Your task to perform on an android device: turn off smart reply in the gmail app Image 0: 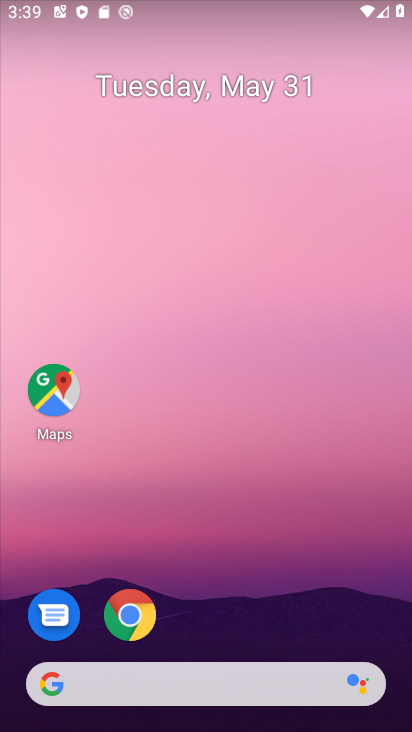
Step 0: click (102, 97)
Your task to perform on an android device: turn off smart reply in the gmail app Image 1: 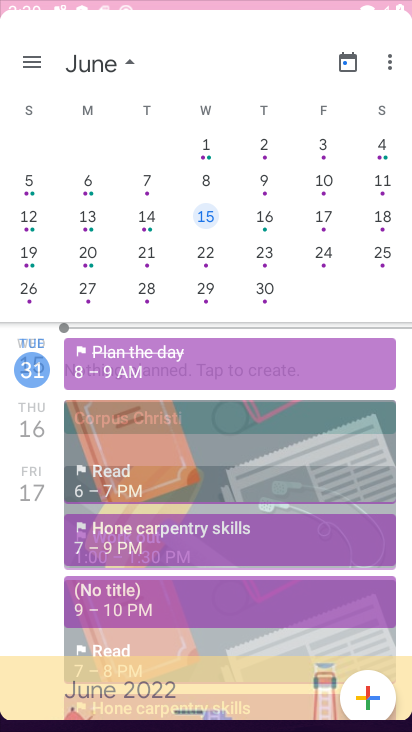
Step 1: click (222, 44)
Your task to perform on an android device: turn off smart reply in the gmail app Image 2: 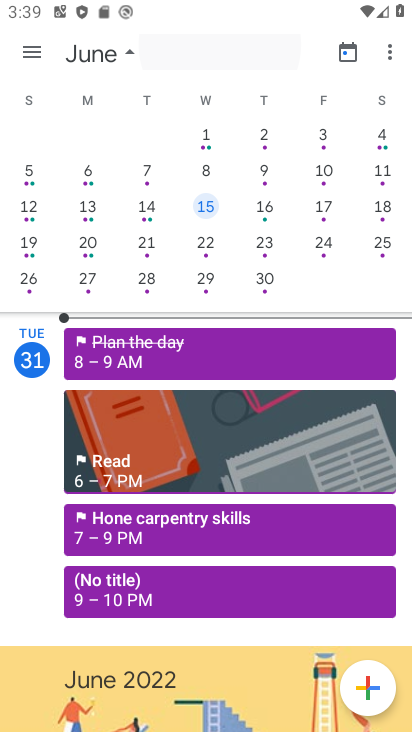
Step 2: drag from (220, 254) to (196, 93)
Your task to perform on an android device: turn off smart reply in the gmail app Image 3: 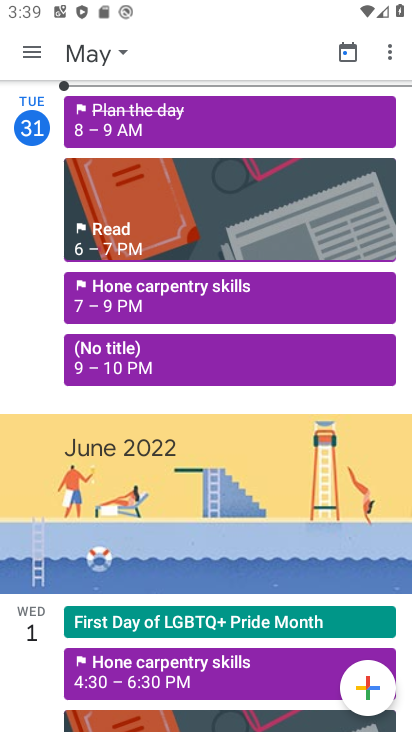
Step 3: press back button
Your task to perform on an android device: turn off smart reply in the gmail app Image 4: 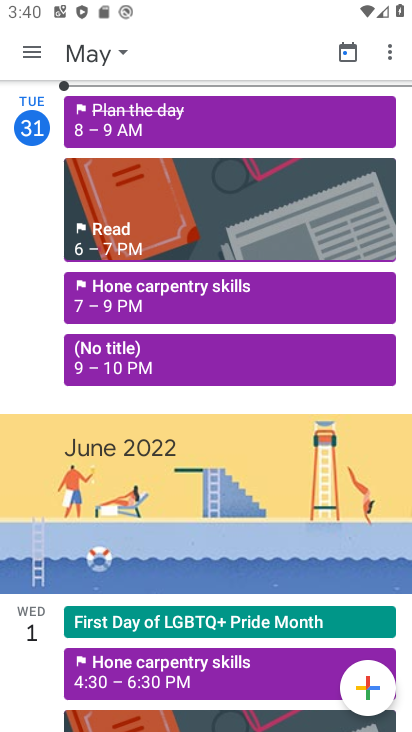
Step 4: press back button
Your task to perform on an android device: turn off smart reply in the gmail app Image 5: 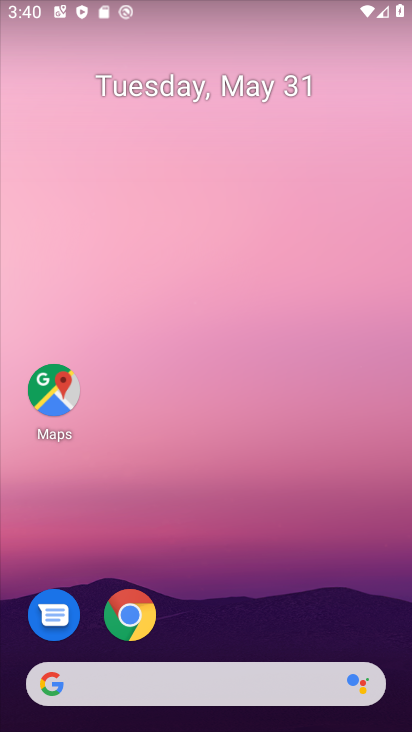
Step 5: drag from (242, 295) to (219, 75)
Your task to perform on an android device: turn off smart reply in the gmail app Image 6: 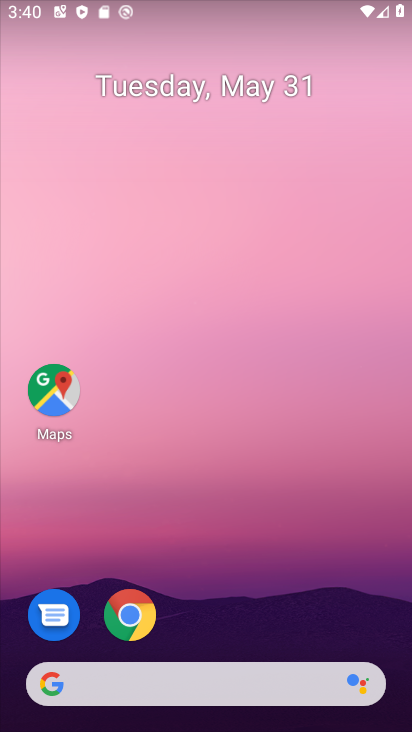
Step 6: drag from (259, 696) to (182, 54)
Your task to perform on an android device: turn off smart reply in the gmail app Image 7: 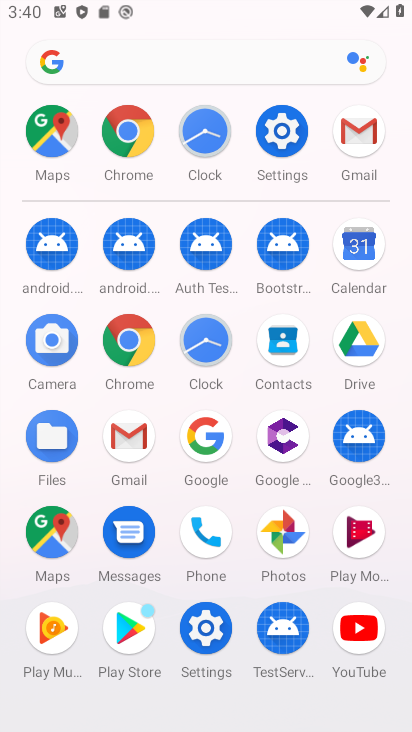
Step 7: drag from (182, 222) to (139, 34)
Your task to perform on an android device: turn off smart reply in the gmail app Image 8: 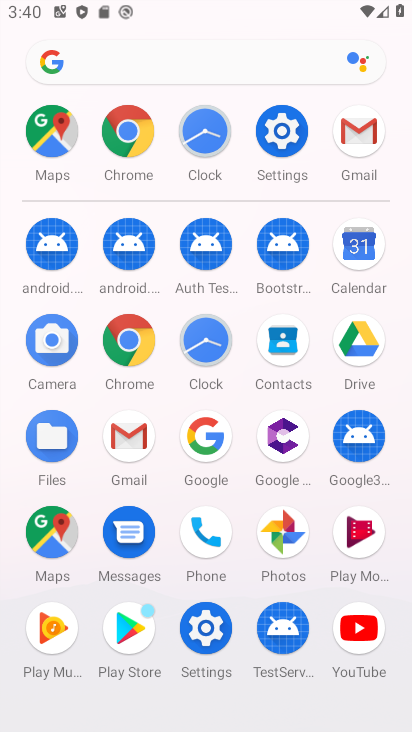
Step 8: click (130, 445)
Your task to perform on an android device: turn off smart reply in the gmail app Image 9: 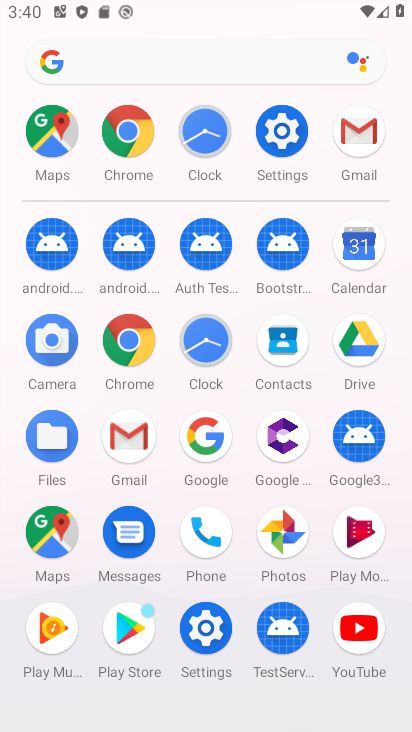
Step 9: click (132, 444)
Your task to perform on an android device: turn off smart reply in the gmail app Image 10: 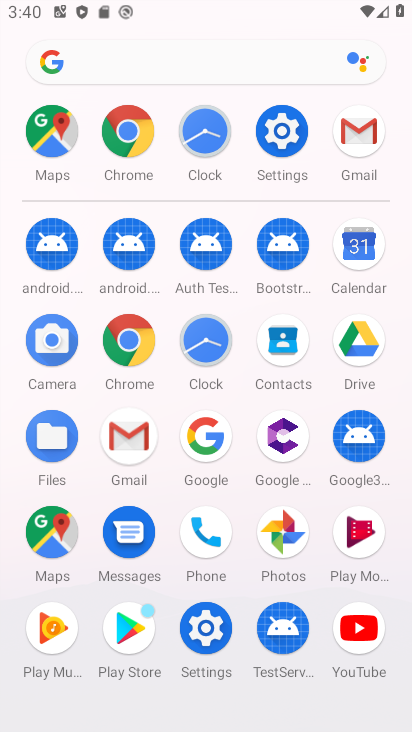
Step 10: click (135, 441)
Your task to perform on an android device: turn off smart reply in the gmail app Image 11: 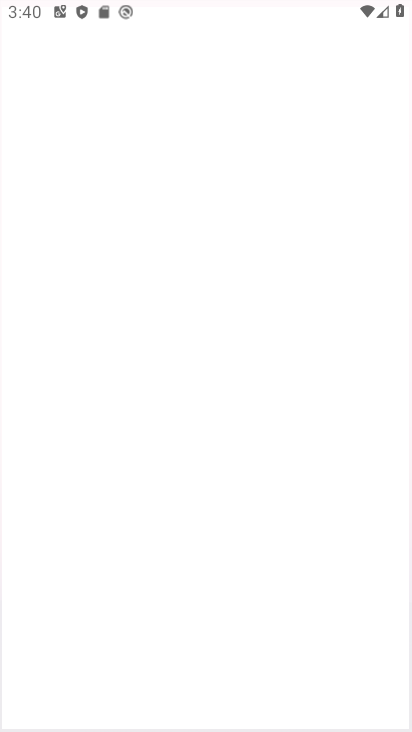
Step 11: click (135, 441)
Your task to perform on an android device: turn off smart reply in the gmail app Image 12: 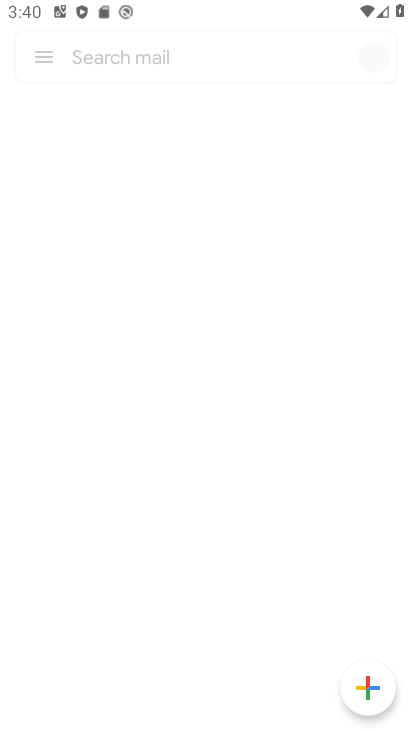
Step 12: click (138, 444)
Your task to perform on an android device: turn off smart reply in the gmail app Image 13: 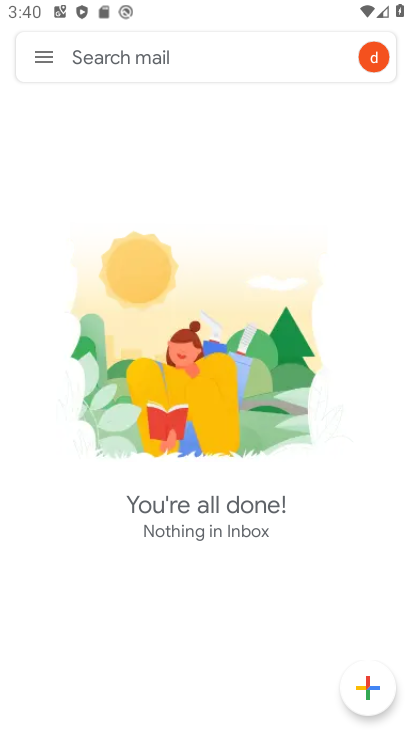
Step 13: click (47, 61)
Your task to perform on an android device: turn off smart reply in the gmail app Image 14: 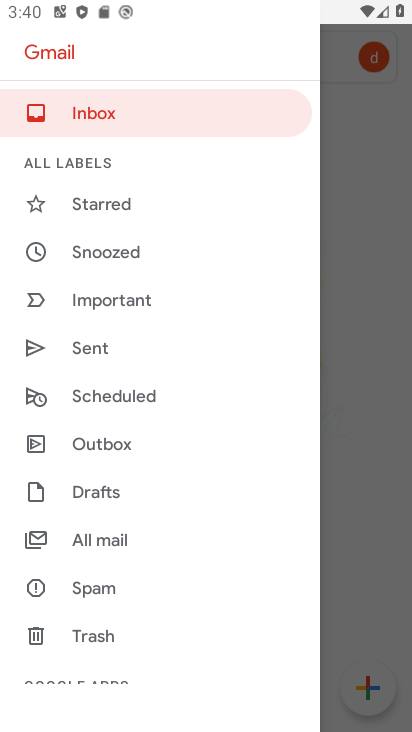
Step 14: drag from (105, 554) to (110, 185)
Your task to perform on an android device: turn off smart reply in the gmail app Image 15: 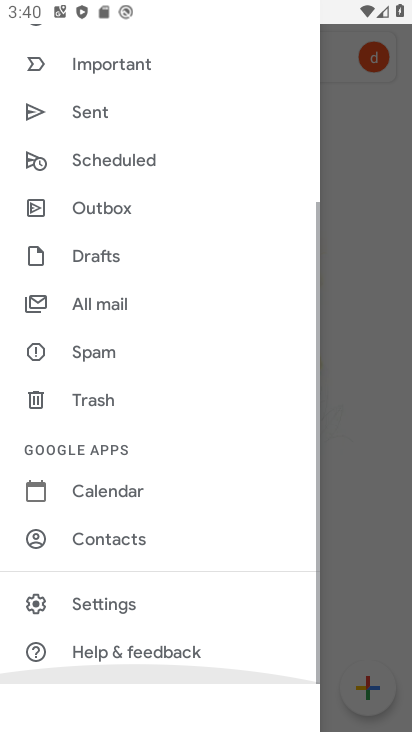
Step 15: drag from (92, 484) to (68, 245)
Your task to perform on an android device: turn off smart reply in the gmail app Image 16: 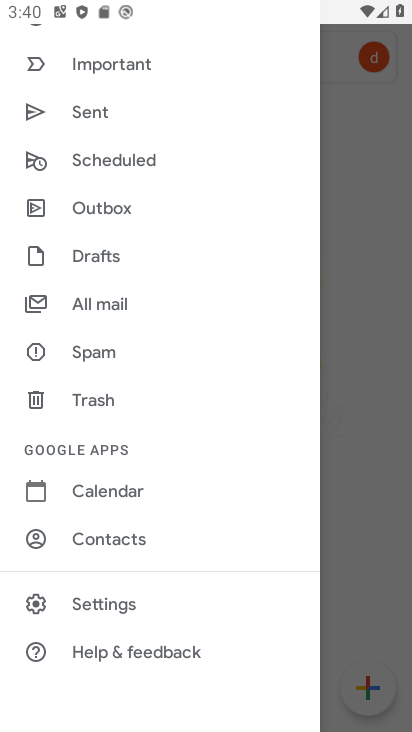
Step 16: click (95, 601)
Your task to perform on an android device: turn off smart reply in the gmail app Image 17: 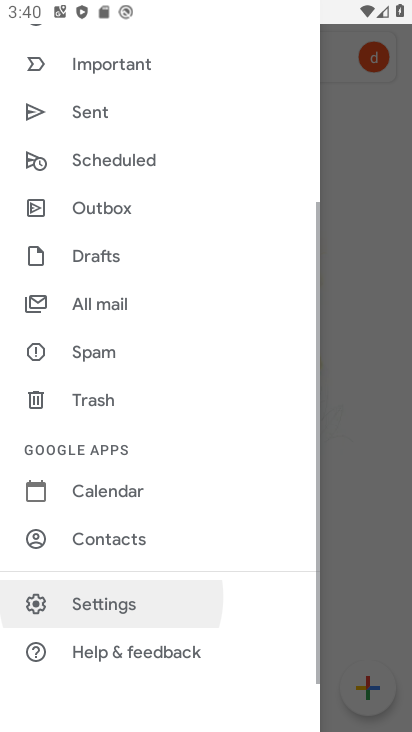
Step 17: click (95, 601)
Your task to perform on an android device: turn off smart reply in the gmail app Image 18: 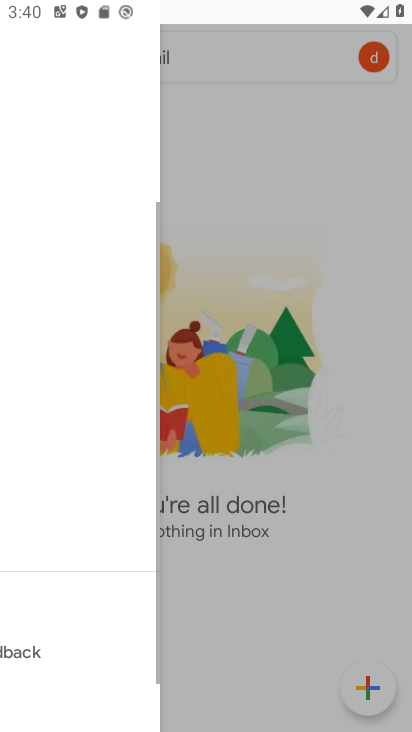
Step 18: click (99, 601)
Your task to perform on an android device: turn off smart reply in the gmail app Image 19: 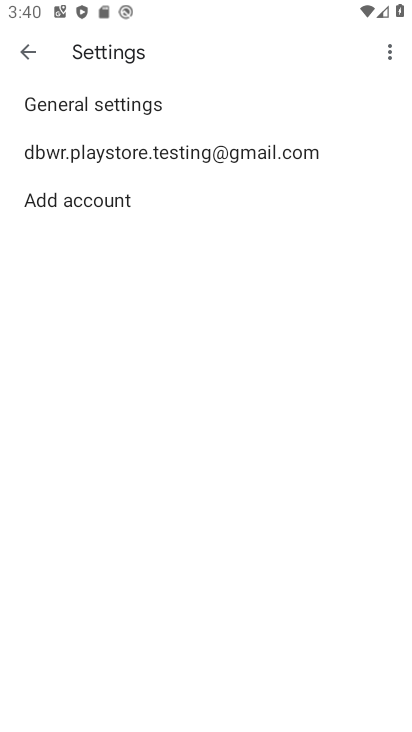
Step 19: click (86, 149)
Your task to perform on an android device: turn off smart reply in the gmail app Image 20: 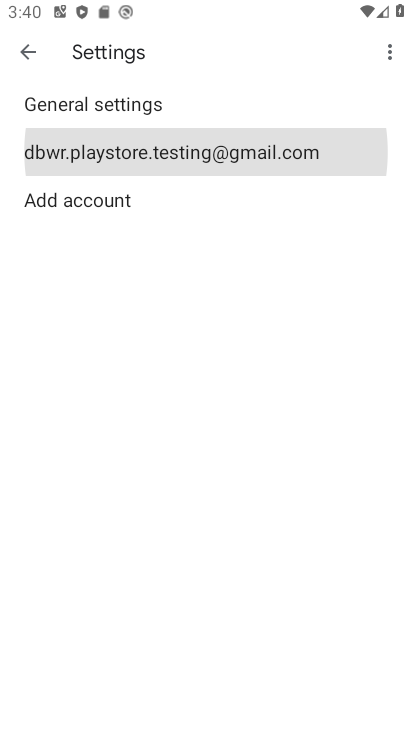
Step 20: click (88, 149)
Your task to perform on an android device: turn off smart reply in the gmail app Image 21: 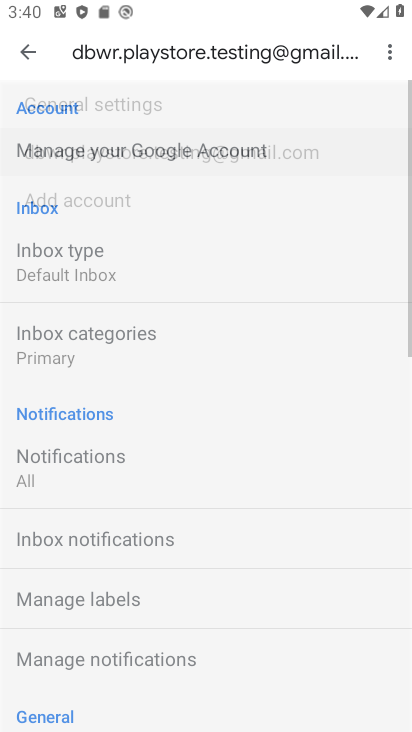
Step 21: click (89, 149)
Your task to perform on an android device: turn off smart reply in the gmail app Image 22: 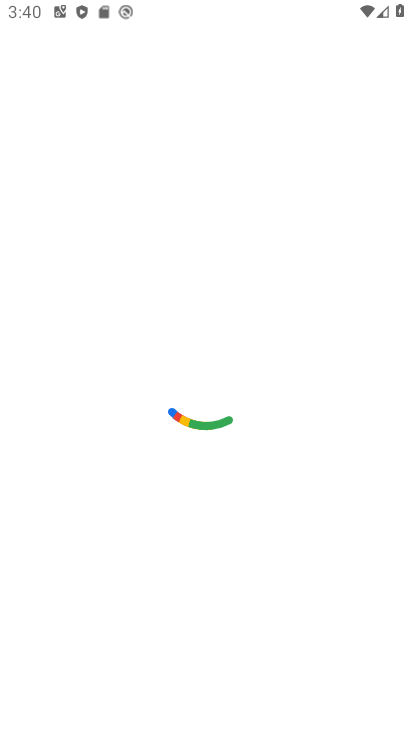
Step 22: press back button
Your task to perform on an android device: turn off smart reply in the gmail app Image 23: 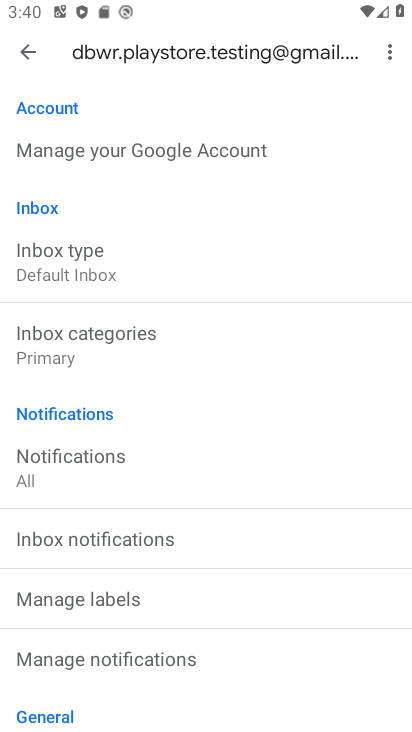
Step 23: drag from (95, 507) to (85, 78)
Your task to perform on an android device: turn off smart reply in the gmail app Image 24: 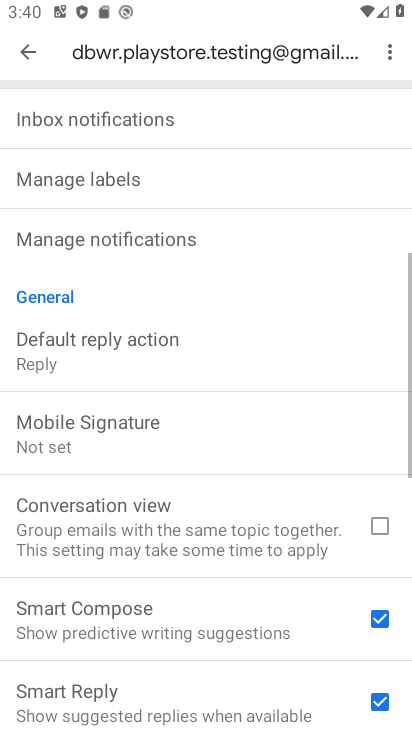
Step 24: drag from (132, 495) to (116, 75)
Your task to perform on an android device: turn off smart reply in the gmail app Image 25: 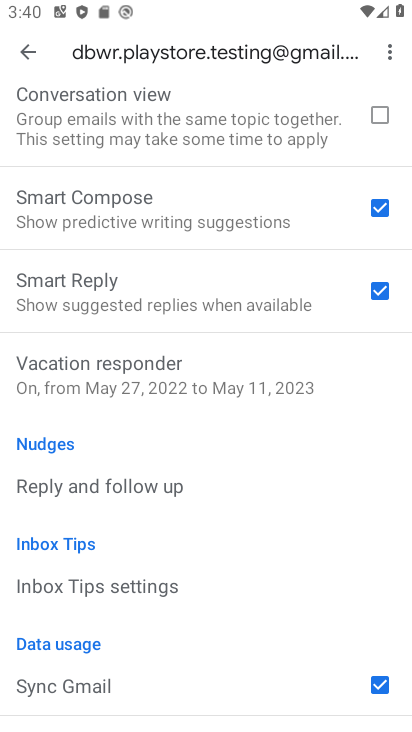
Step 25: click (376, 290)
Your task to perform on an android device: turn off smart reply in the gmail app Image 26: 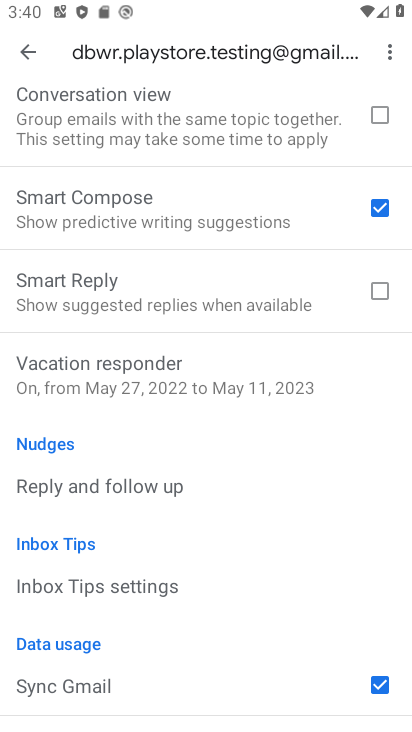
Step 26: task complete